Your task to perform on an android device: turn on data saver in the chrome app Image 0: 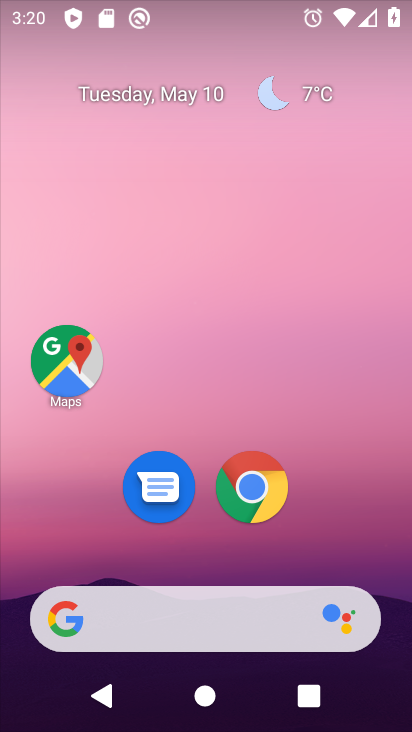
Step 0: click (254, 485)
Your task to perform on an android device: turn on data saver in the chrome app Image 1: 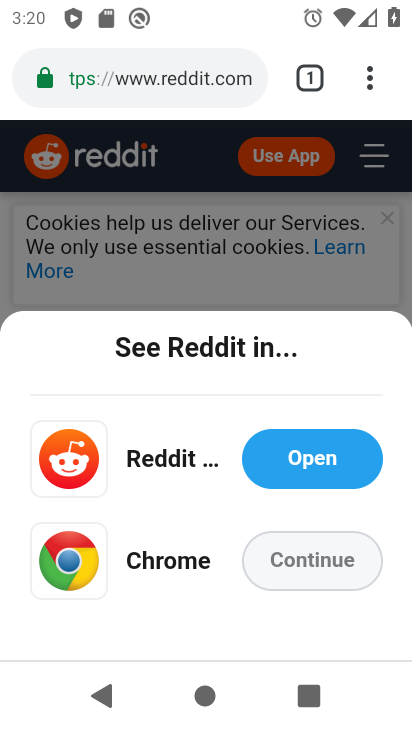
Step 1: drag from (362, 70) to (170, 546)
Your task to perform on an android device: turn on data saver in the chrome app Image 2: 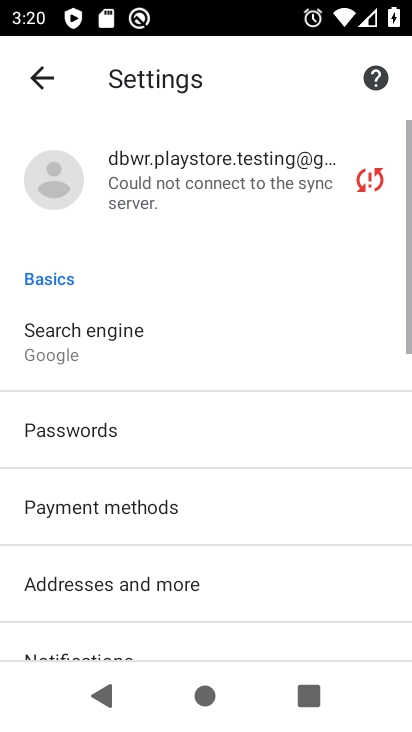
Step 2: drag from (218, 590) to (268, 100)
Your task to perform on an android device: turn on data saver in the chrome app Image 3: 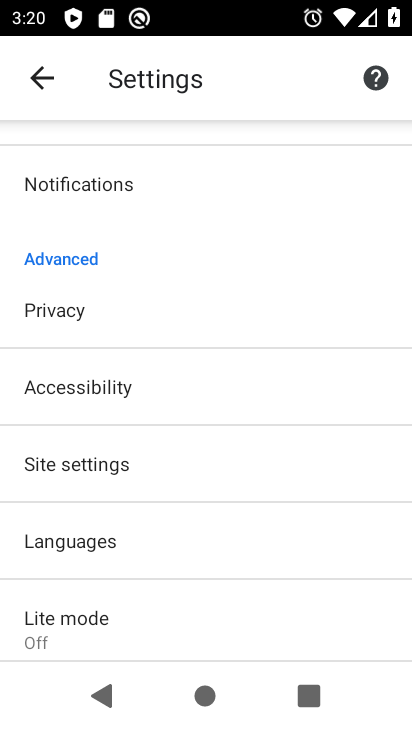
Step 3: drag from (247, 542) to (216, 170)
Your task to perform on an android device: turn on data saver in the chrome app Image 4: 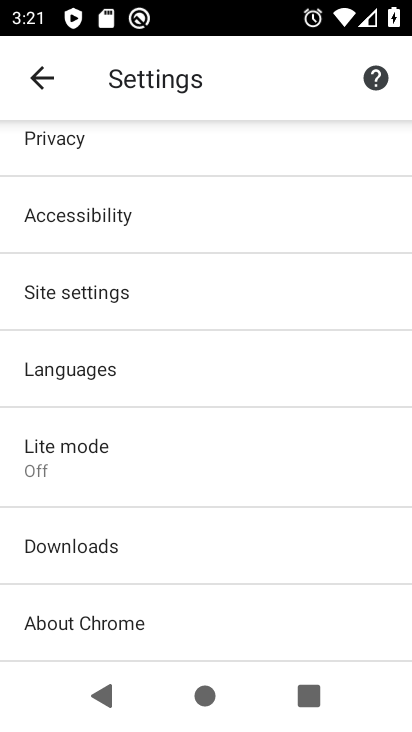
Step 4: click (151, 447)
Your task to perform on an android device: turn on data saver in the chrome app Image 5: 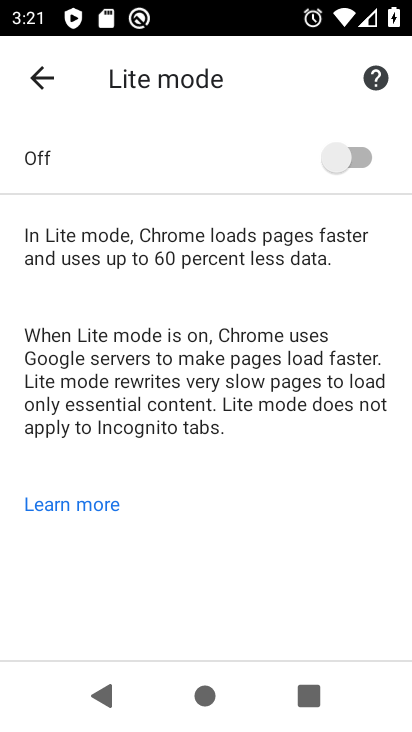
Step 5: click (365, 161)
Your task to perform on an android device: turn on data saver in the chrome app Image 6: 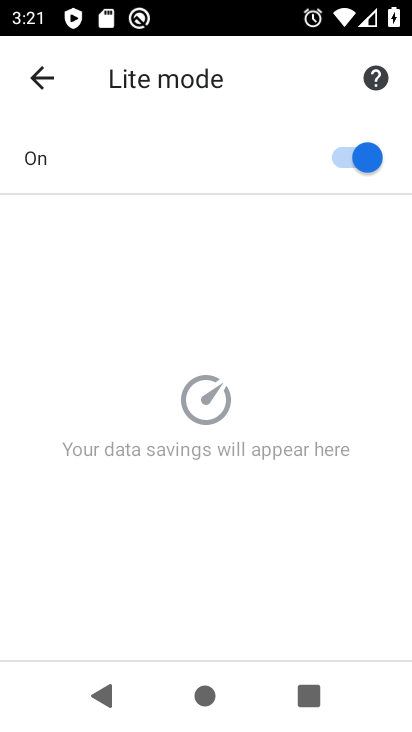
Step 6: task complete